Your task to perform on an android device: Is it going to rain this weekend? Image 0: 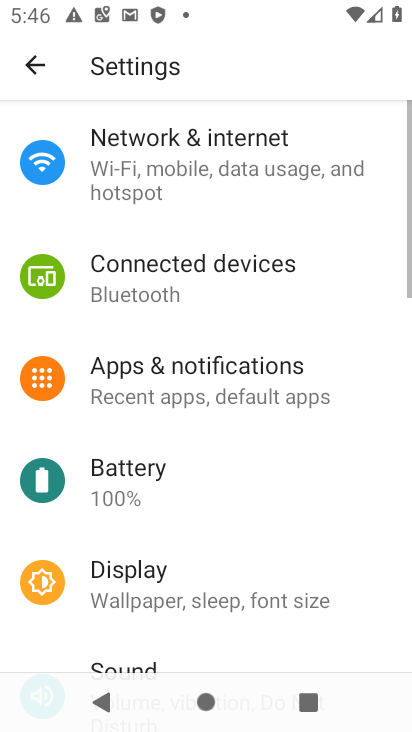
Step 0: drag from (160, 611) to (160, 297)
Your task to perform on an android device: Is it going to rain this weekend? Image 1: 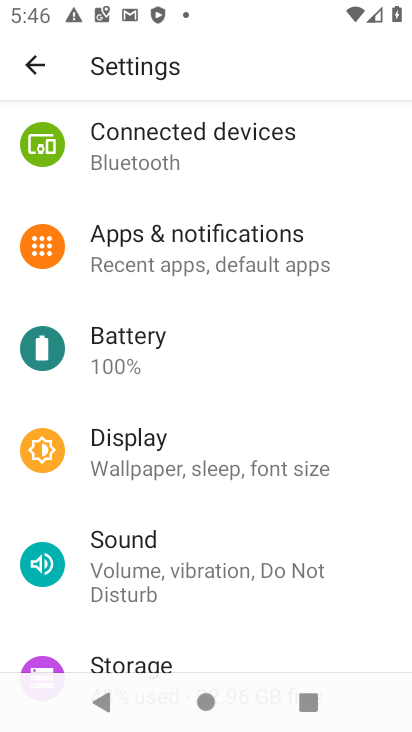
Step 1: press home button
Your task to perform on an android device: Is it going to rain this weekend? Image 2: 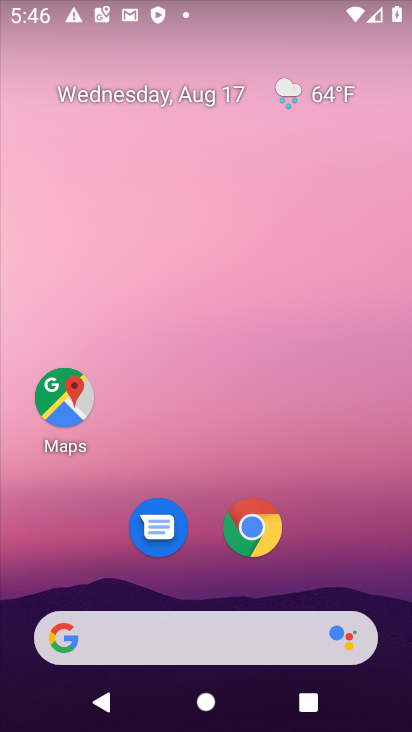
Step 2: drag from (198, 595) to (194, 189)
Your task to perform on an android device: Is it going to rain this weekend? Image 3: 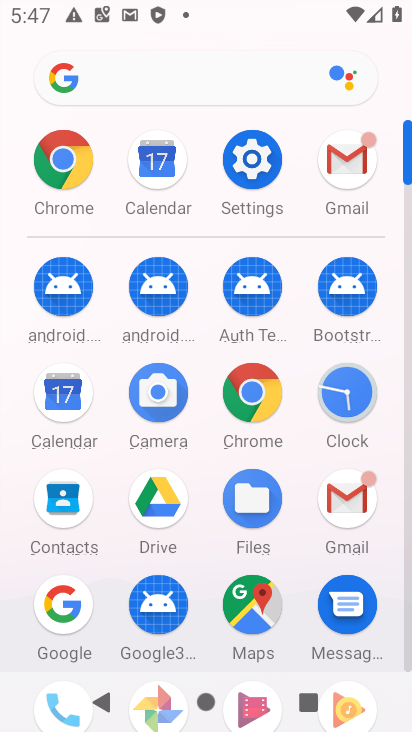
Step 3: click (47, 603)
Your task to perform on an android device: Is it going to rain this weekend? Image 4: 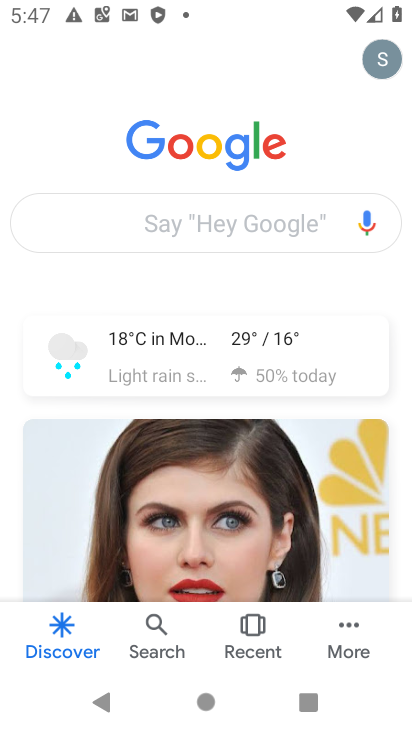
Step 4: click (165, 225)
Your task to perform on an android device: Is it going to rain this weekend? Image 5: 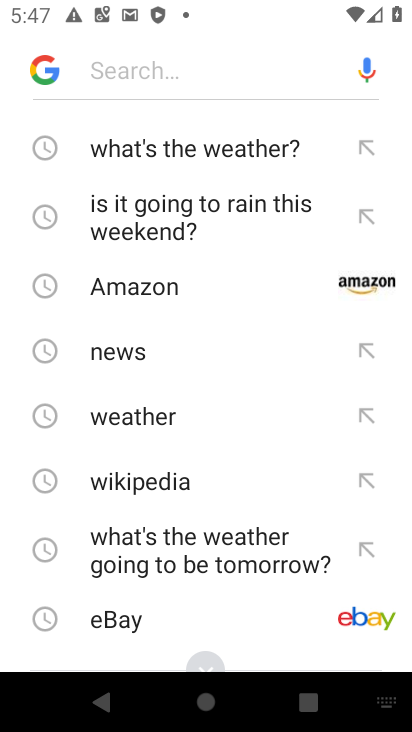
Step 5: click (123, 224)
Your task to perform on an android device: Is it going to rain this weekend? Image 6: 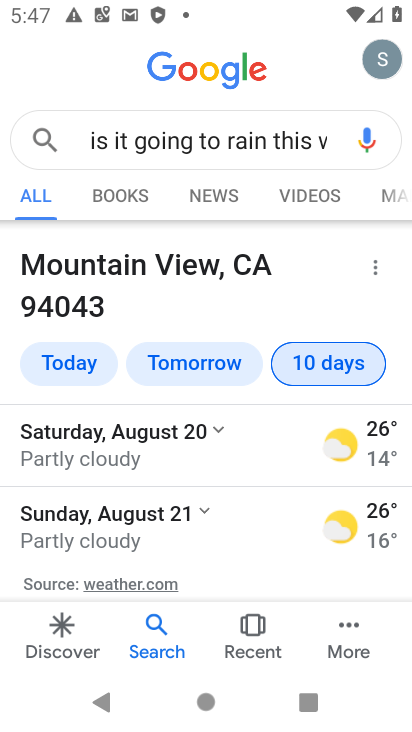
Step 6: drag from (197, 537) to (181, 227)
Your task to perform on an android device: Is it going to rain this weekend? Image 7: 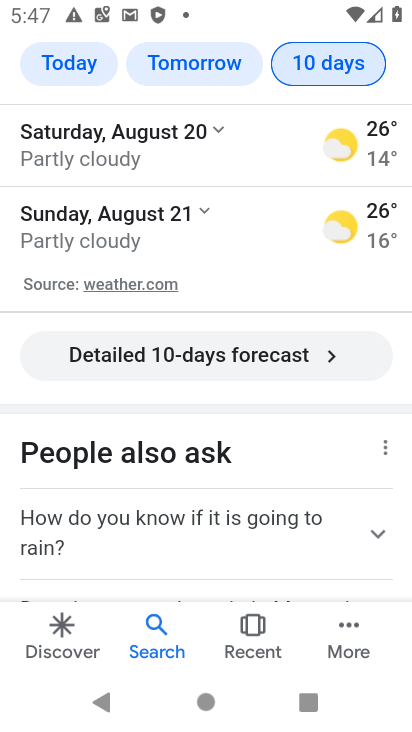
Step 7: click (180, 353)
Your task to perform on an android device: Is it going to rain this weekend? Image 8: 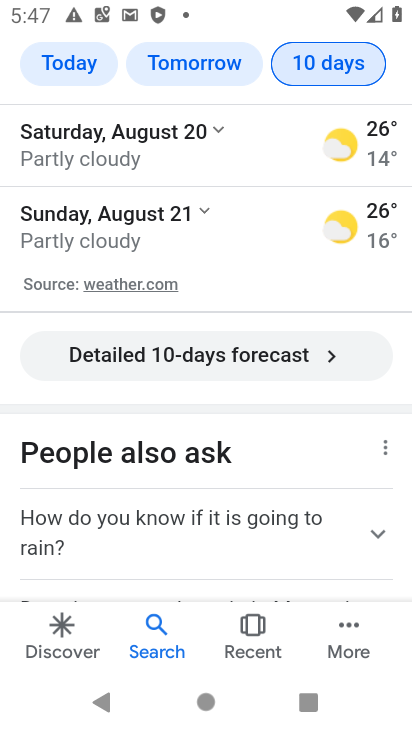
Step 8: task complete